Your task to perform on an android device: Open my contact list Image 0: 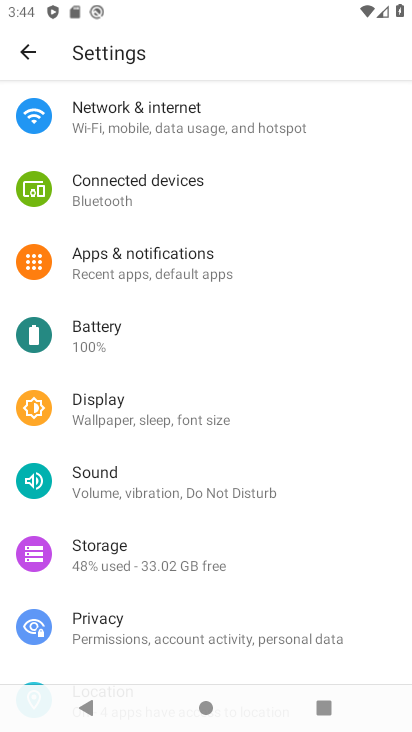
Step 0: press home button
Your task to perform on an android device: Open my contact list Image 1: 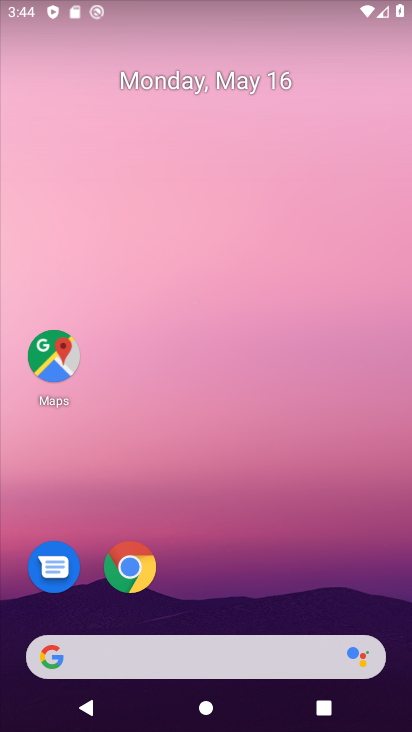
Step 1: drag from (164, 663) to (297, 0)
Your task to perform on an android device: Open my contact list Image 2: 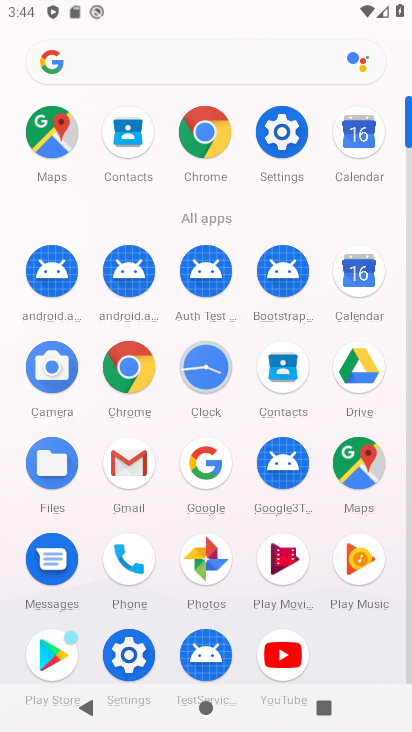
Step 2: click (288, 374)
Your task to perform on an android device: Open my contact list Image 3: 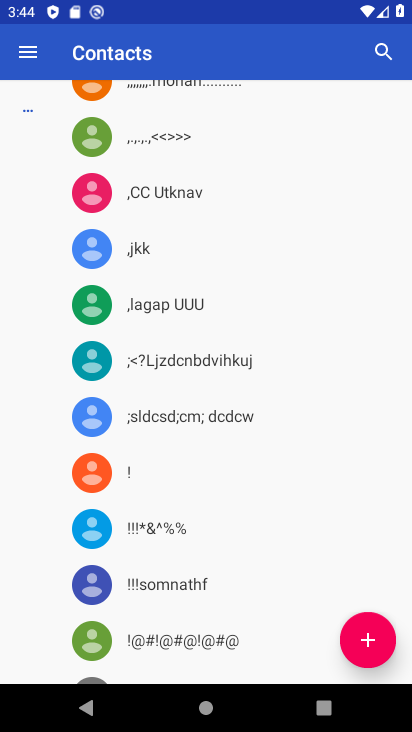
Step 3: task complete